Your task to perform on an android device: Open sound settings Image 0: 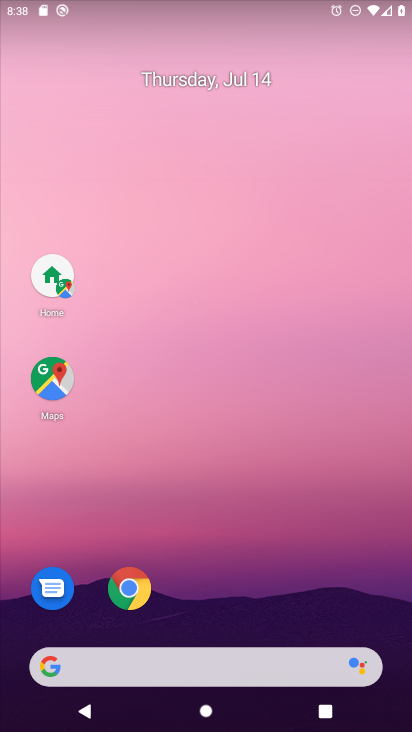
Step 0: drag from (24, 705) to (163, 171)
Your task to perform on an android device: Open sound settings Image 1: 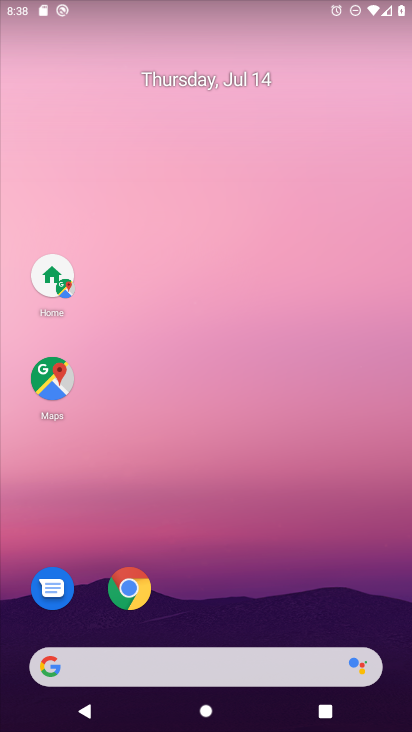
Step 1: drag from (39, 714) to (251, 113)
Your task to perform on an android device: Open sound settings Image 2: 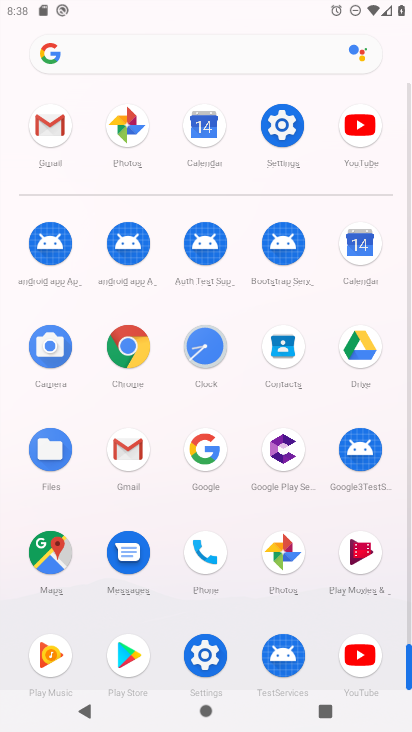
Step 2: click (188, 664)
Your task to perform on an android device: Open sound settings Image 3: 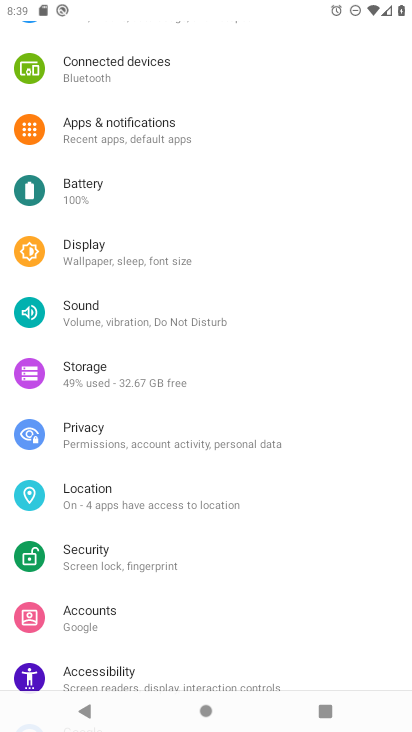
Step 3: click (162, 313)
Your task to perform on an android device: Open sound settings Image 4: 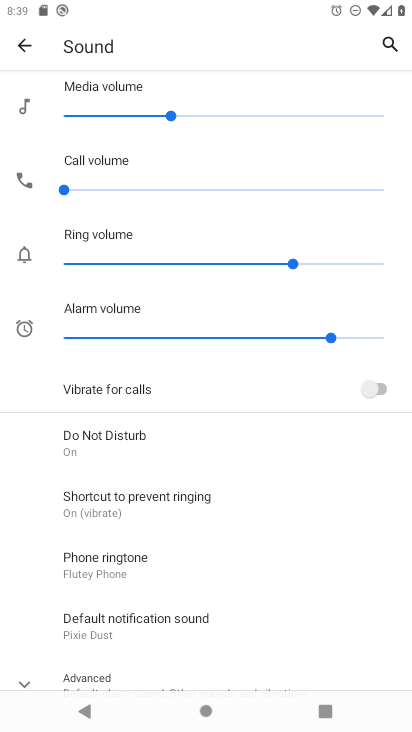
Step 4: task complete